Your task to perform on an android device: change notifications settings Image 0: 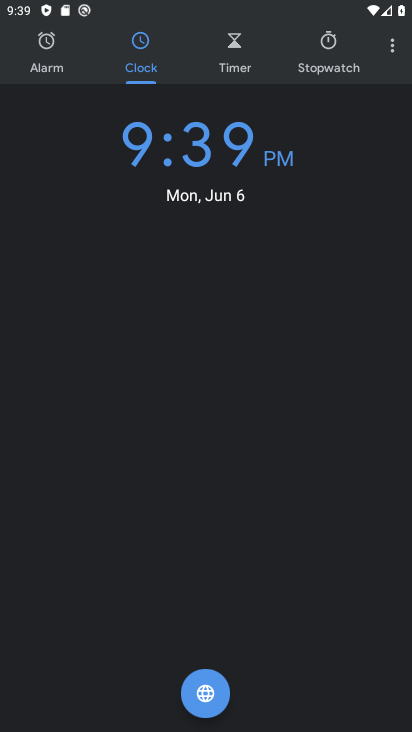
Step 0: press home button
Your task to perform on an android device: change notifications settings Image 1: 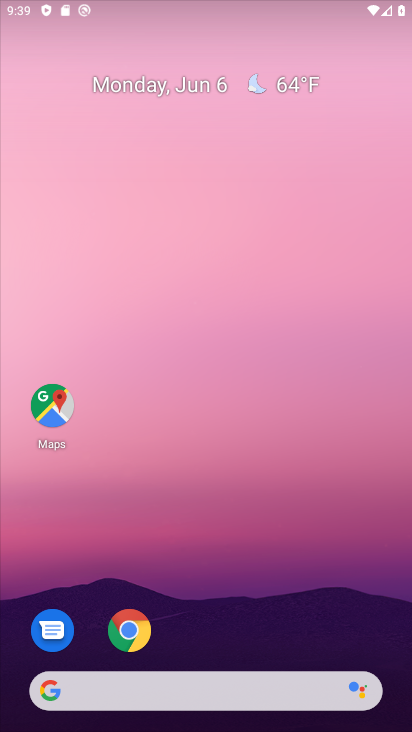
Step 1: drag from (140, 718) to (39, 160)
Your task to perform on an android device: change notifications settings Image 2: 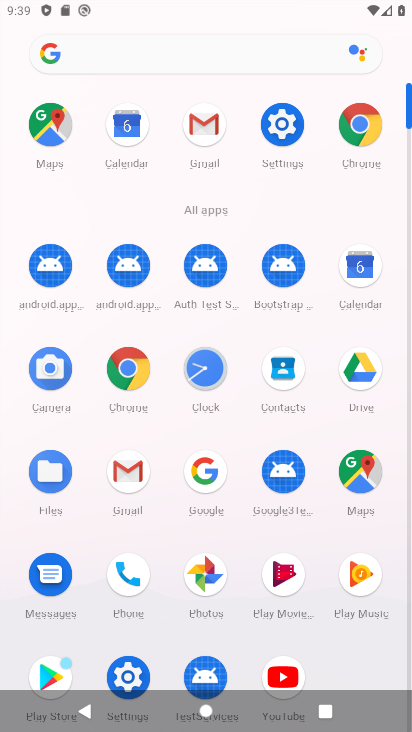
Step 2: click (271, 134)
Your task to perform on an android device: change notifications settings Image 3: 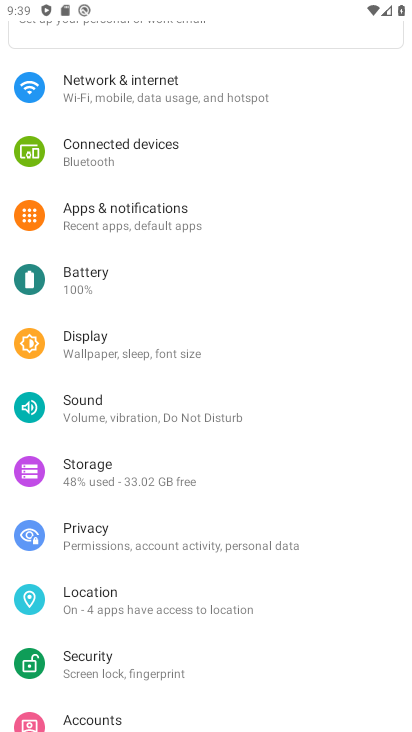
Step 3: click (128, 226)
Your task to perform on an android device: change notifications settings Image 4: 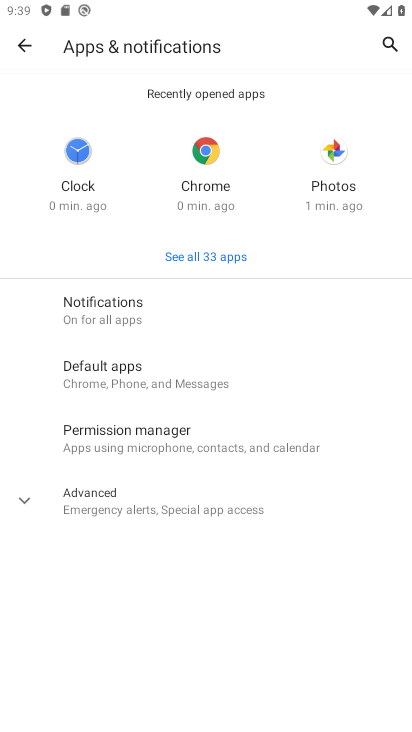
Step 4: click (140, 334)
Your task to perform on an android device: change notifications settings Image 5: 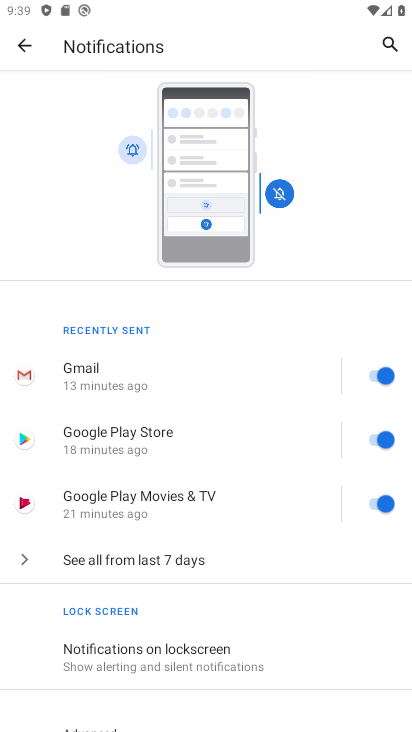
Step 5: click (205, 661)
Your task to perform on an android device: change notifications settings Image 6: 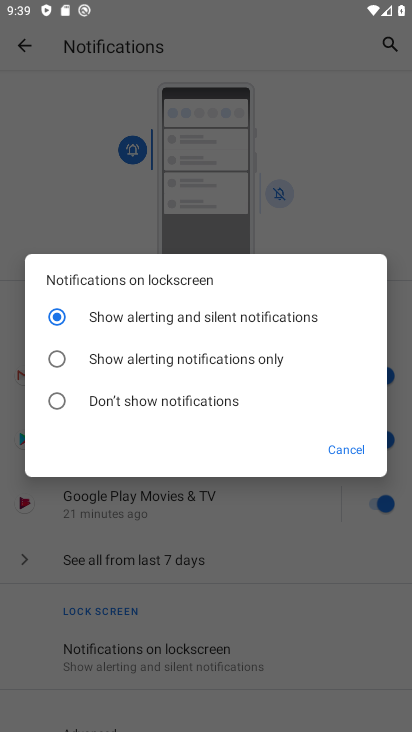
Step 6: click (119, 409)
Your task to perform on an android device: change notifications settings Image 7: 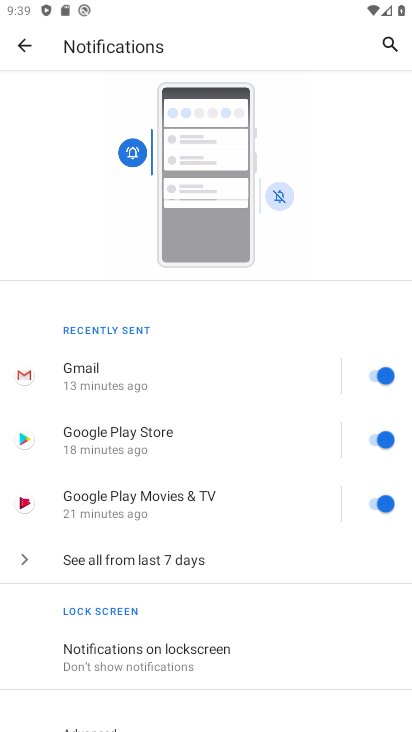
Step 7: task complete